Your task to perform on an android device: open a bookmark in the chrome app Image 0: 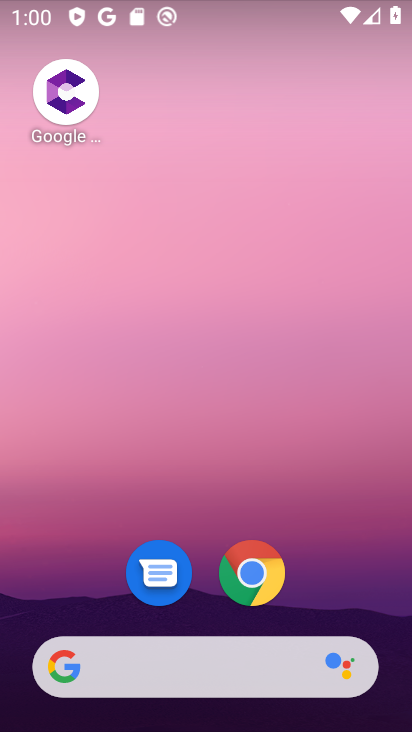
Step 0: click (258, 556)
Your task to perform on an android device: open a bookmark in the chrome app Image 1: 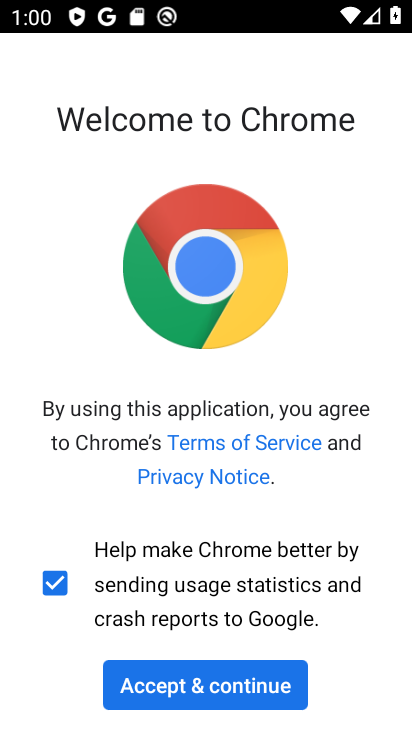
Step 1: click (262, 670)
Your task to perform on an android device: open a bookmark in the chrome app Image 2: 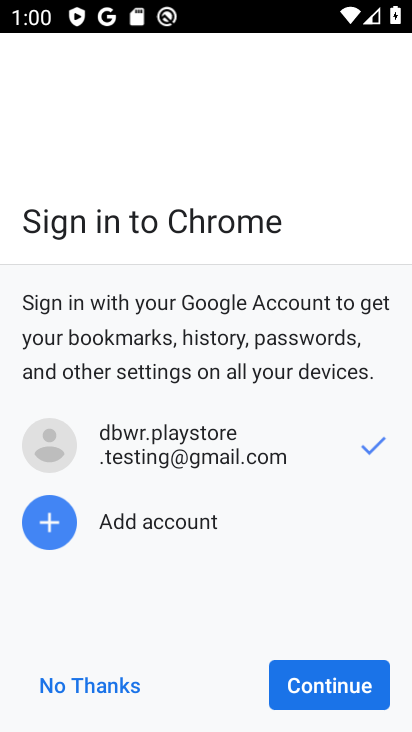
Step 2: click (292, 684)
Your task to perform on an android device: open a bookmark in the chrome app Image 3: 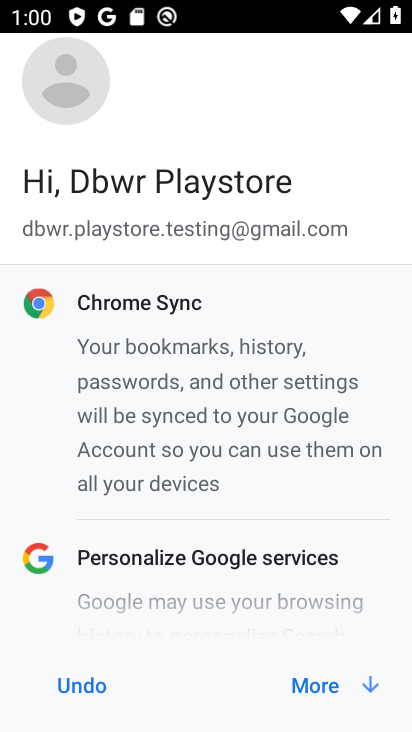
Step 3: click (320, 687)
Your task to perform on an android device: open a bookmark in the chrome app Image 4: 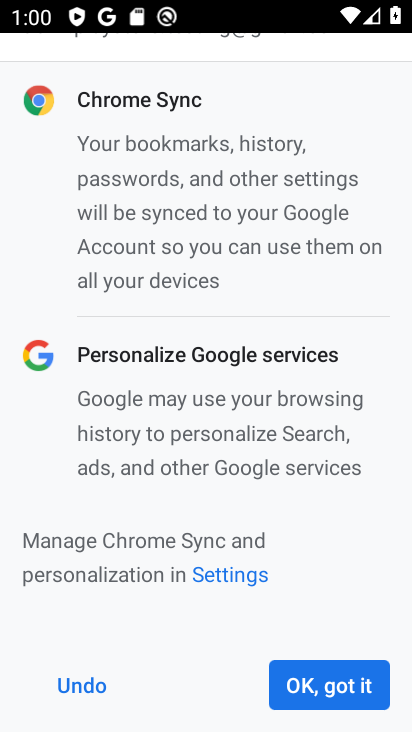
Step 4: click (315, 681)
Your task to perform on an android device: open a bookmark in the chrome app Image 5: 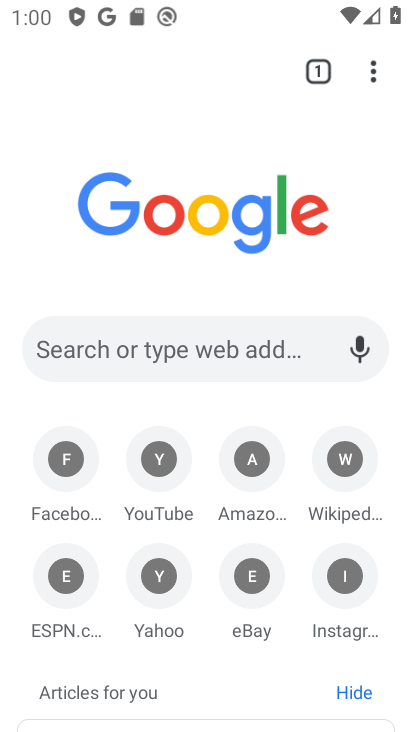
Step 5: click (374, 69)
Your task to perform on an android device: open a bookmark in the chrome app Image 6: 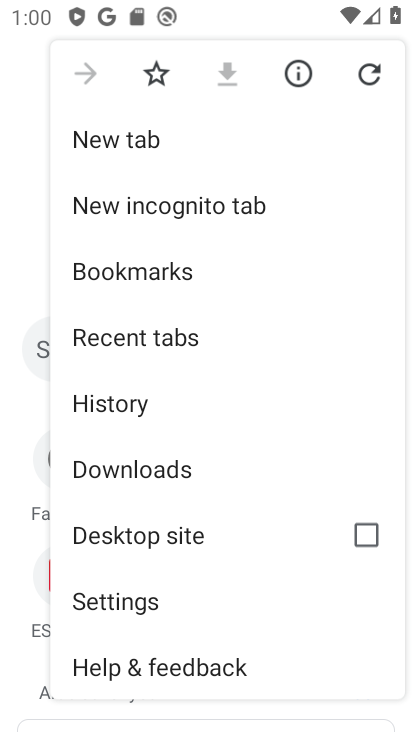
Step 6: click (146, 269)
Your task to perform on an android device: open a bookmark in the chrome app Image 7: 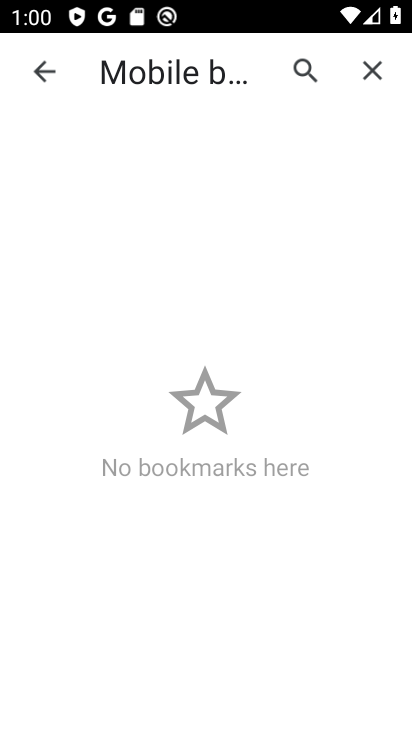
Step 7: task complete